Your task to perform on an android device: Go to notification settings Image 0: 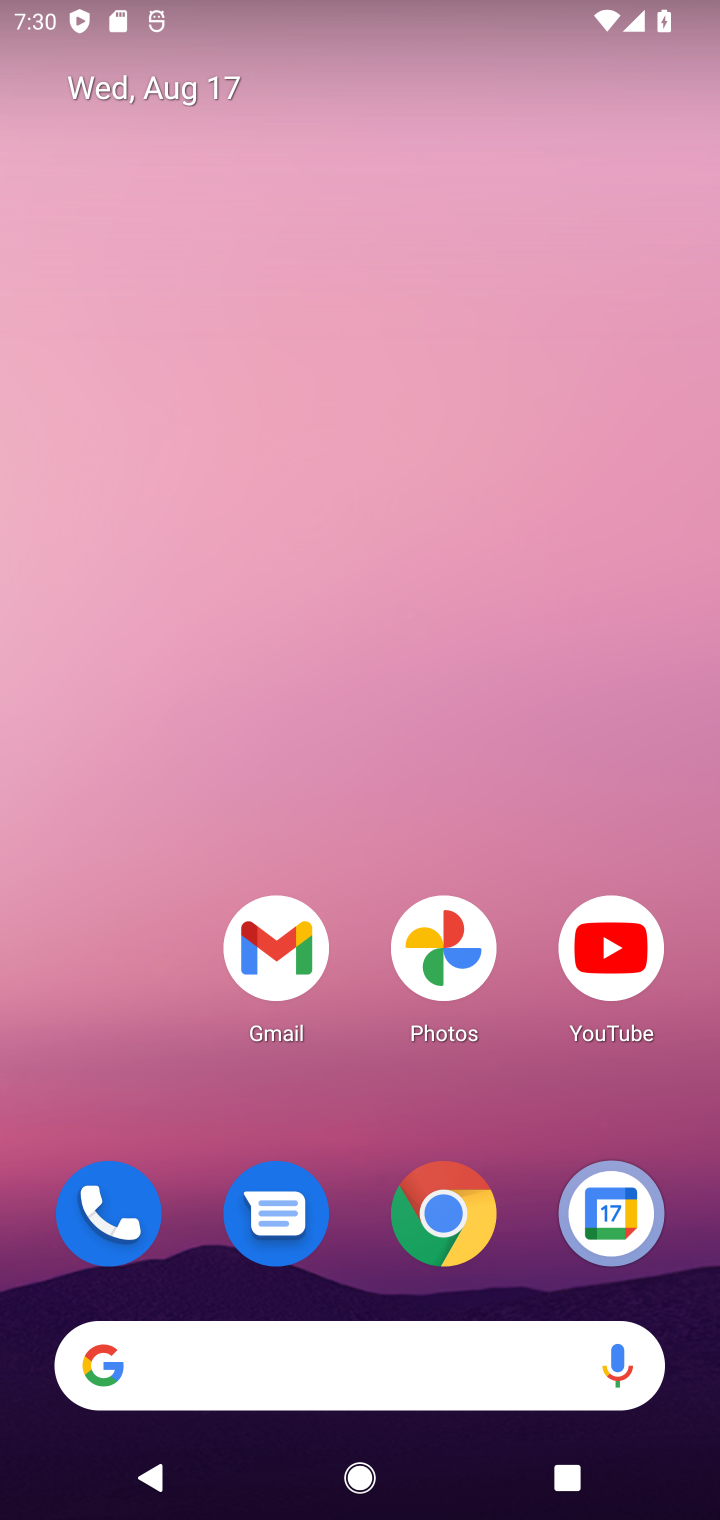
Step 0: drag from (330, 1310) to (355, 147)
Your task to perform on an android device: Go to notification settings Image 1: 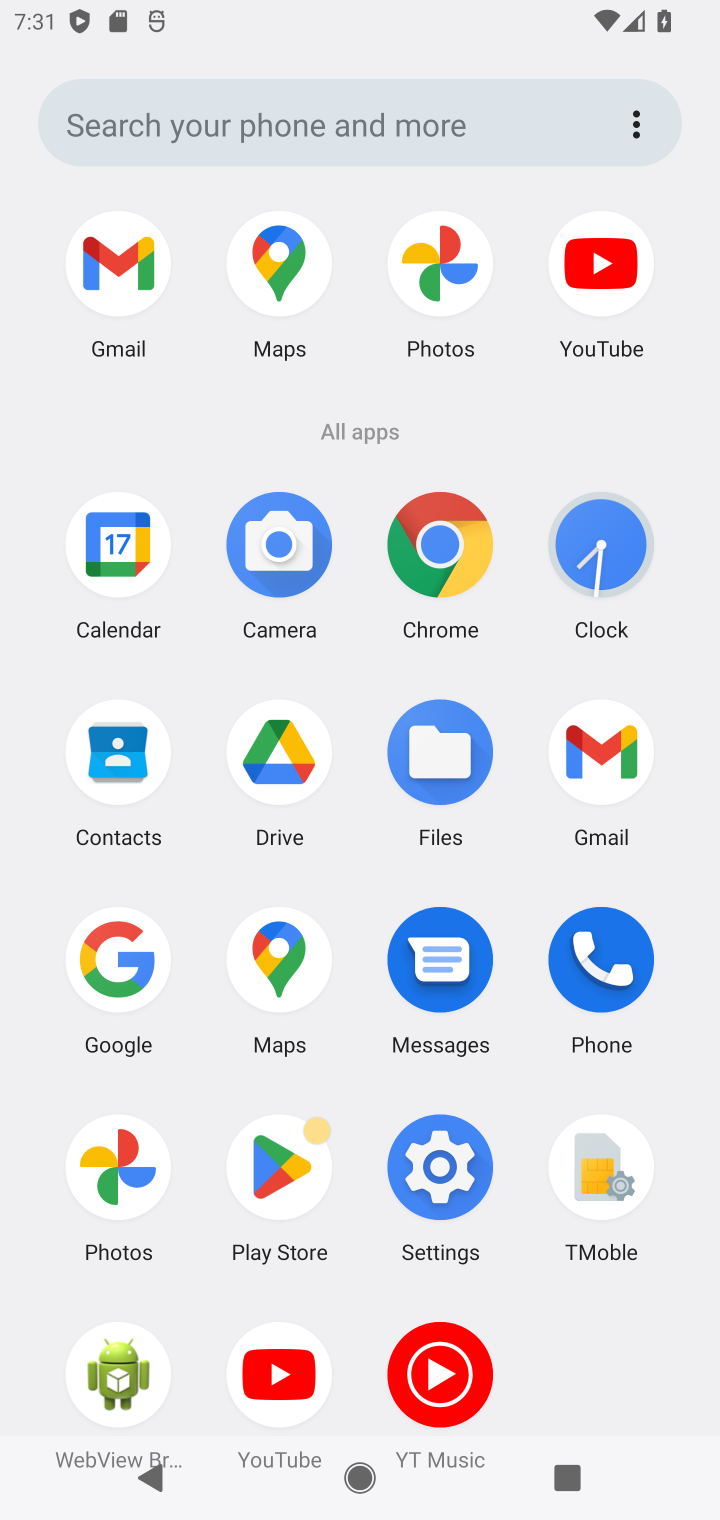
Step 1: click (398, 1229)
Your task to perform on an android device: Go to notification settings Image 2: 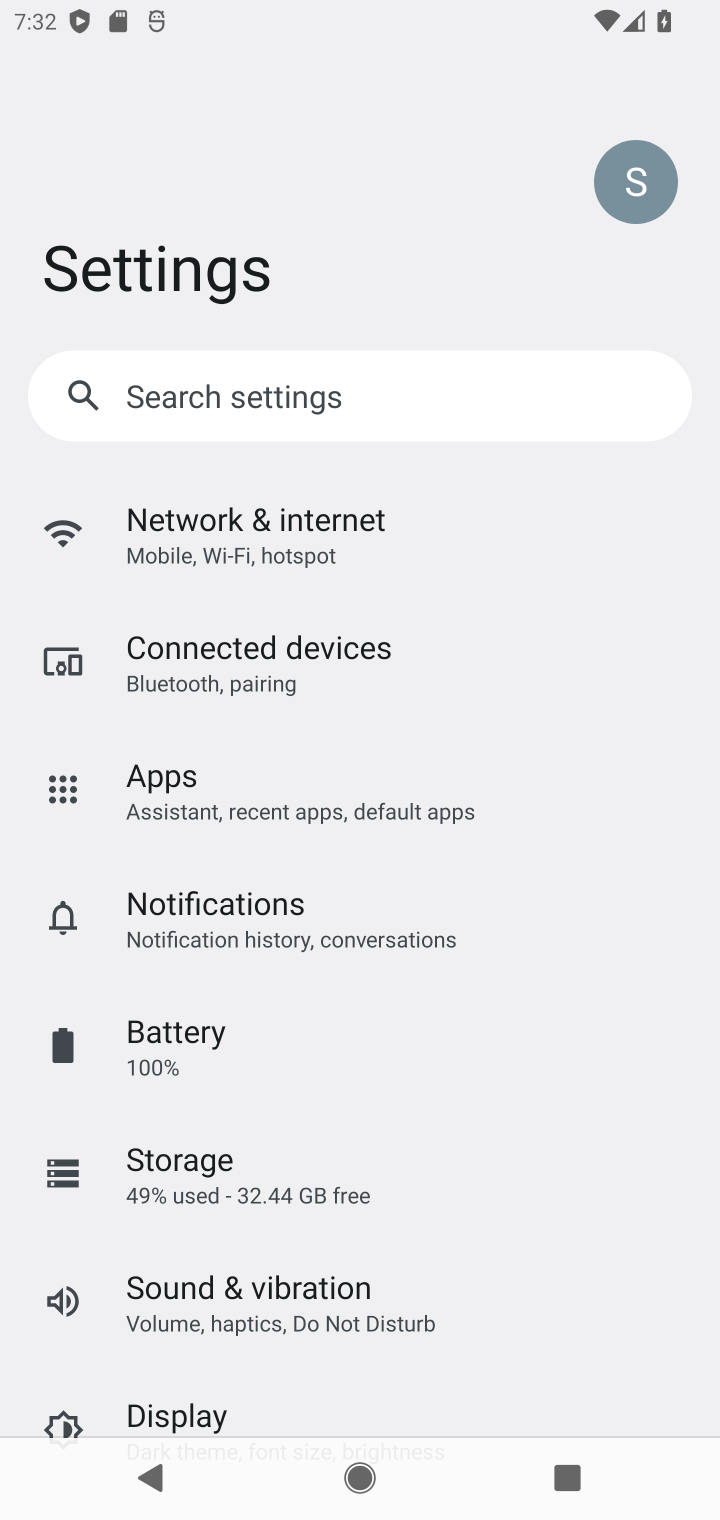
Step 2: drag from (253, 1299) to (300, 776)
Your task to perform on an android device: Go to notification settings Image 3: 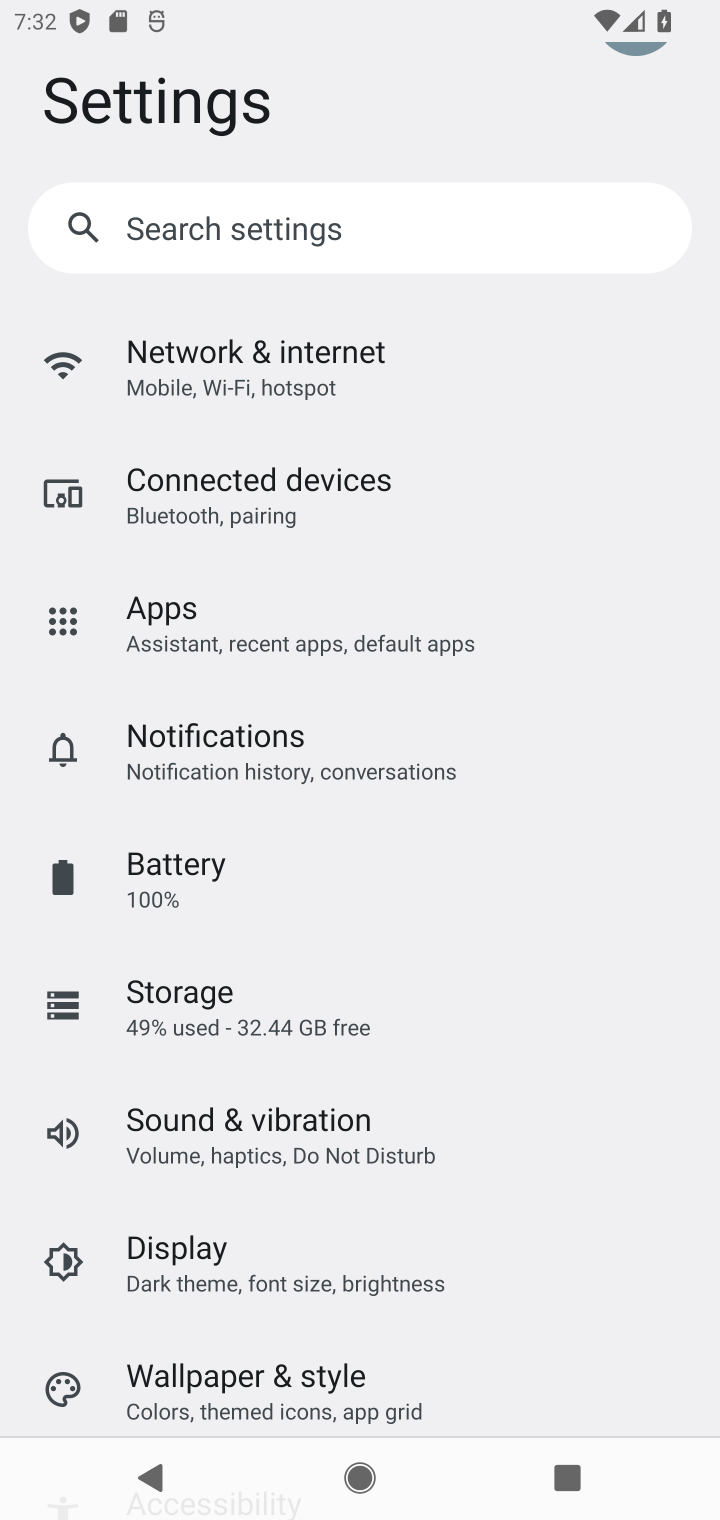
Step 3: click (261, 771)
Your task to perform on an android device: Go to notification settings Image 4: 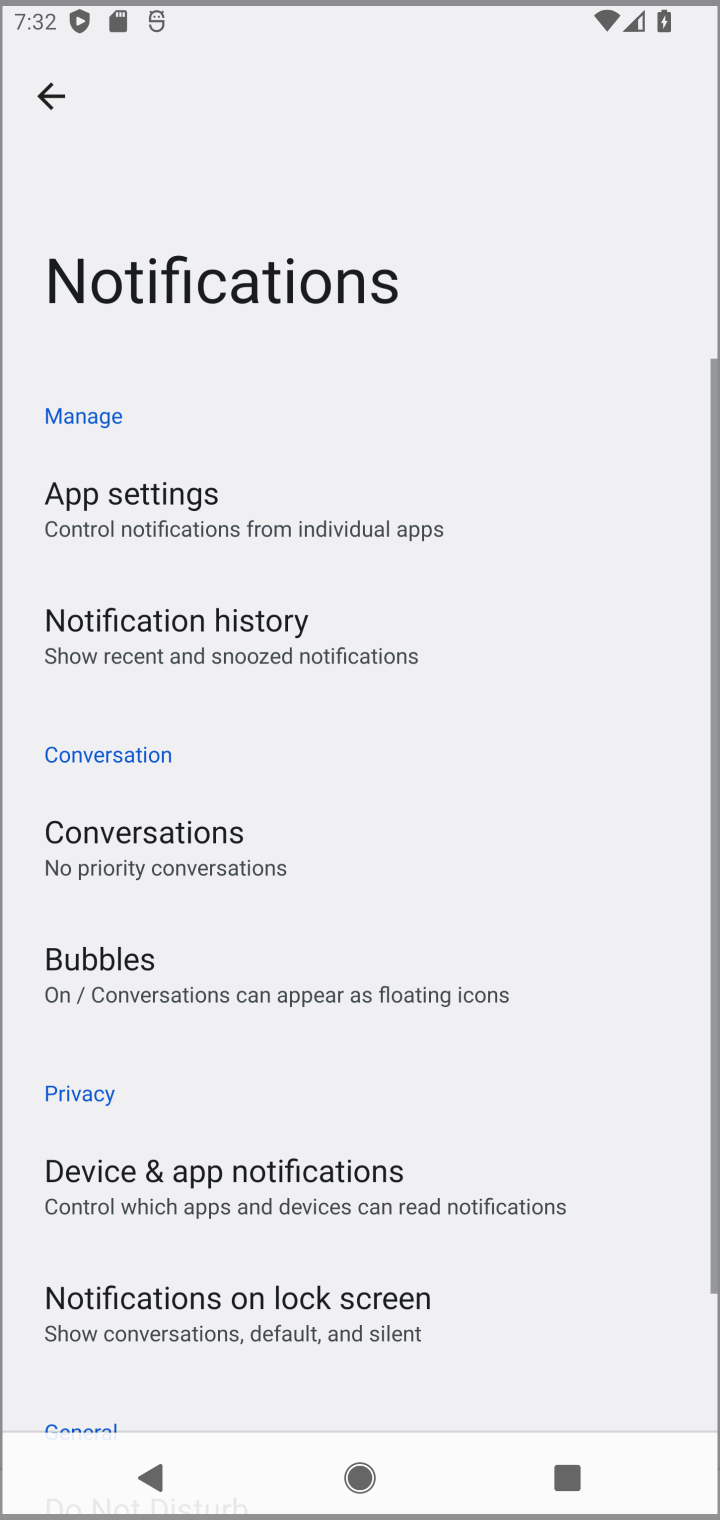
Step 4: task complete